Your task to perform on an android device: What's on Reddit this week Image 0: 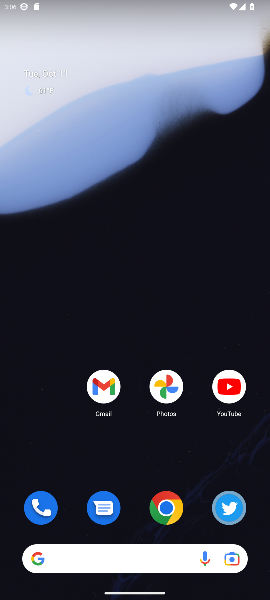
Step 0: click (175, 512)
Your task to perform on an android device: What's on Reddit this week Image 1: 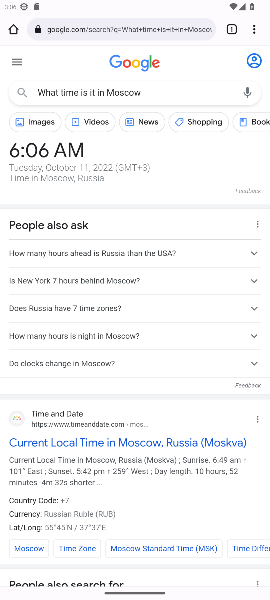
Step 1: click (149, 26)
Your task to perform on an android device: What's on Reddit this week Image 2: 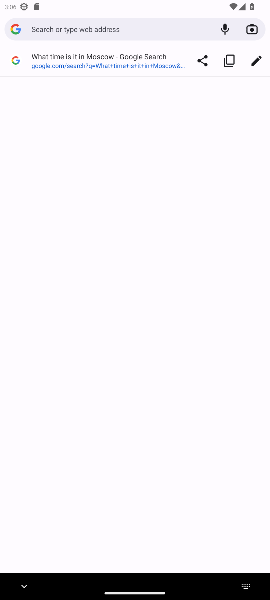
Step 2: type "What's on Reddit this week"
Your task to perform on an android device: What's on Reddit this week Image 3: 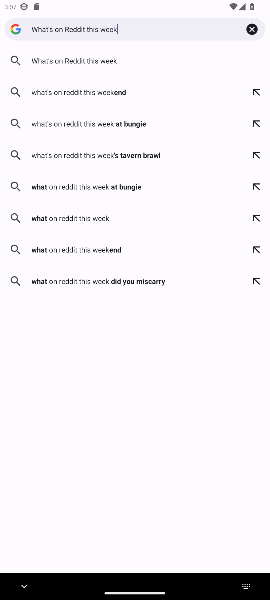
Step 3: press enter
Your task to perform on an android device: What's on Reddit this week Image 4: 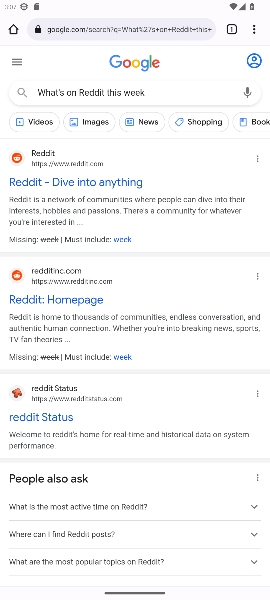
Step 4: click (81, 181)
Your task to perform on an android device: What's on Reddit this week Image 5: 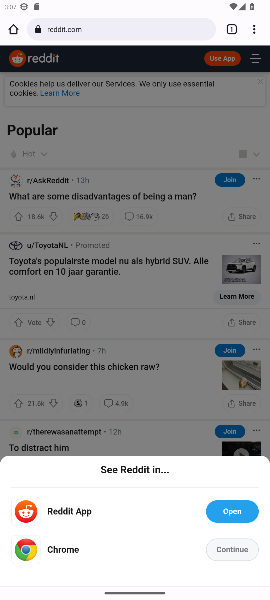
Step 5: click (228, 550)
Your task to perform on an android device: What's on Reddit this week Image 6: 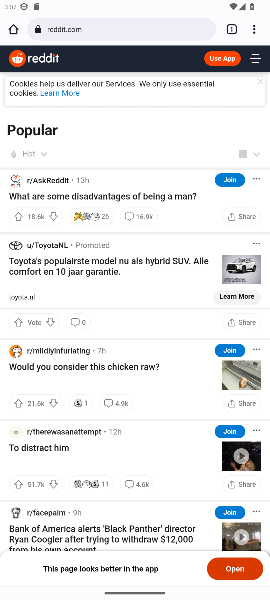
Step 6: task complete